Your task to perform on an android device: see tabs open on other devices in the chrome app Image 0: 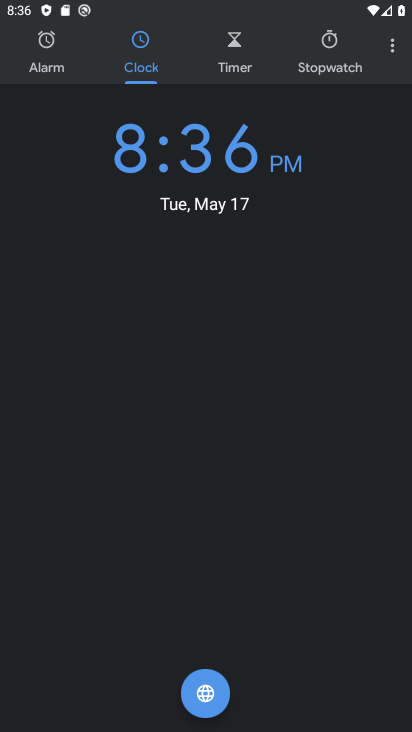
Step 0: press home button
Your task to perform on an android device: see tabs open on other devices in the chrome app Image 1: 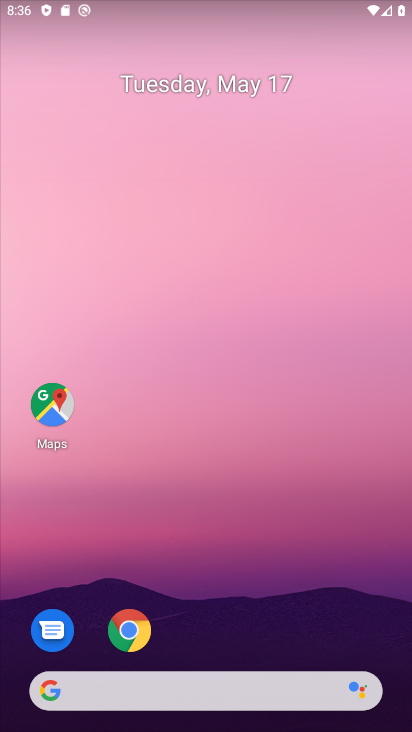
Step 1: drag from (322, 602) to (341, 94)
Your task to perform on an android device: see tabs open on other devices in the chrome app Image 2: 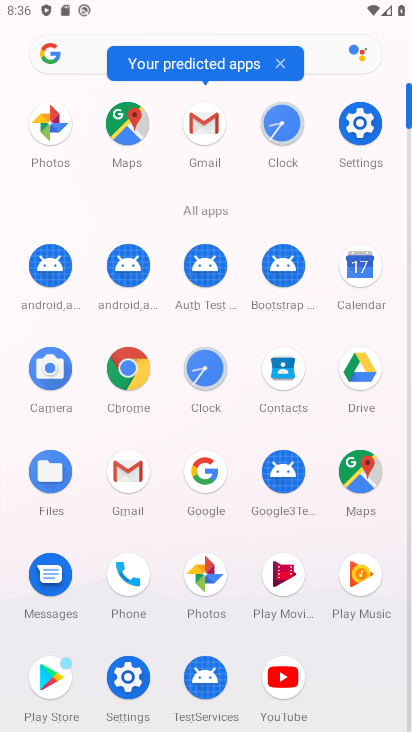
Step 2: click (118, 372)
Your task to perform on an android device: see tabs open on other devices in the chrome app Image 3: 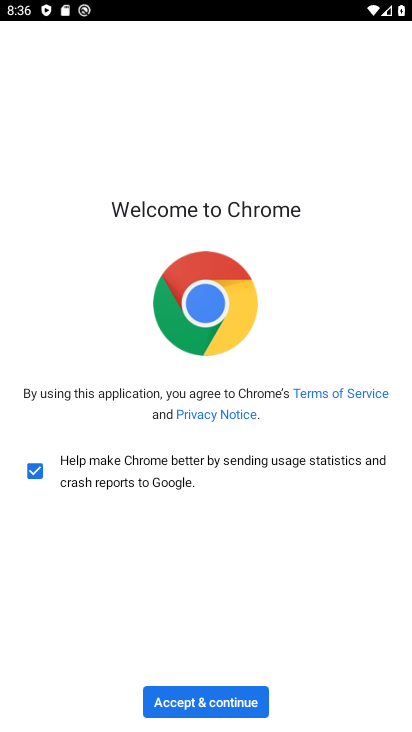
Step 3: click (248, 705)
Your task to perform on an android device: see tabs open on other devices in the chrome app Image 4: 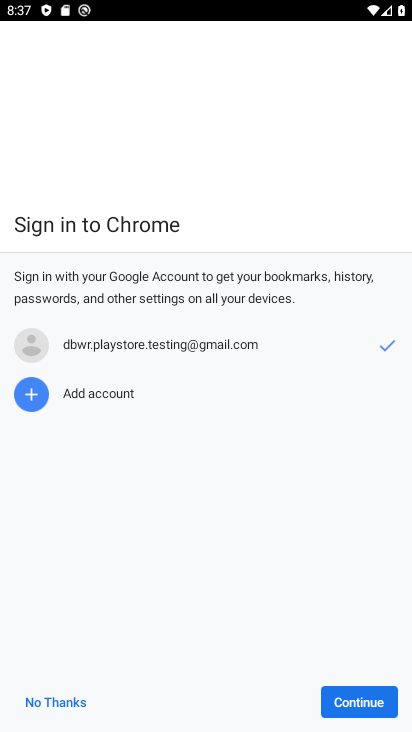
Step 4: click (350, 694)
Your task to perform on an android device: see tabs open on other devices in the chrome app Image 5: 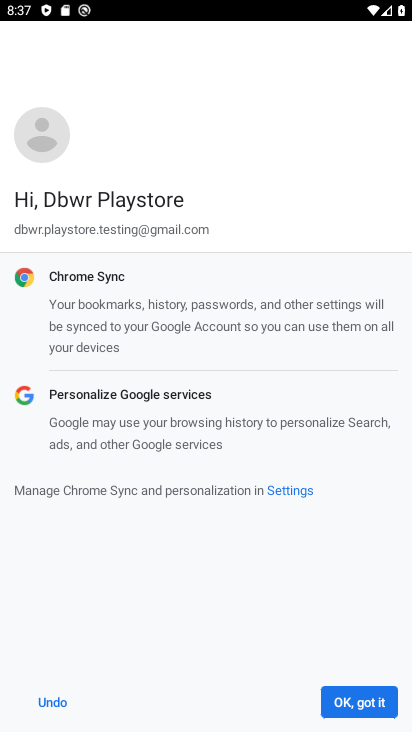
Step 5: click (355, 706)
Your task to perform on an android device: see tabs open on other devices in the chrome app Image 6: 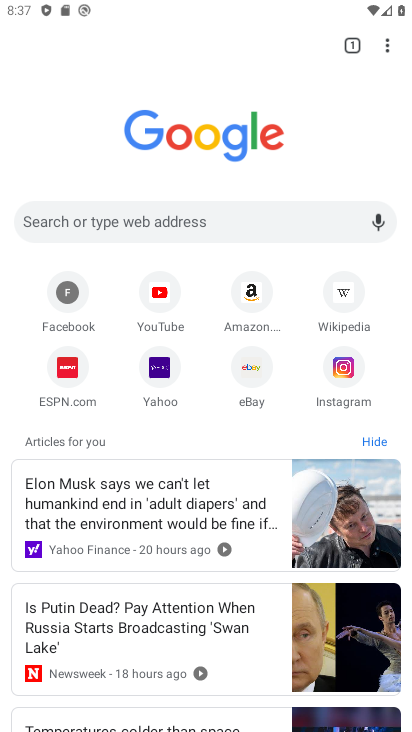
Step 6: click (386, 49)
Your task to perform on an android device: see tabs open on other devices in the chrome app Image 7: 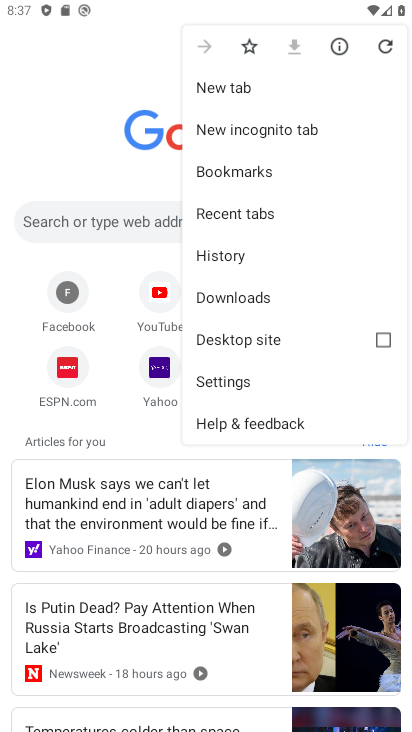
Step 7: click (253, 208)
Your task to perform on an android device: see tabs open on other devices in the chrome app Image 8: 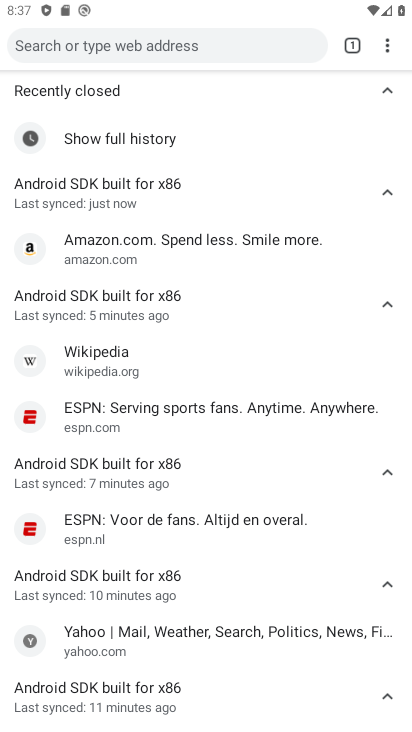
Step 8: click (354, 35)
Your task to perform on an android device: see tabs open on other devices in the chrome app Image 9: 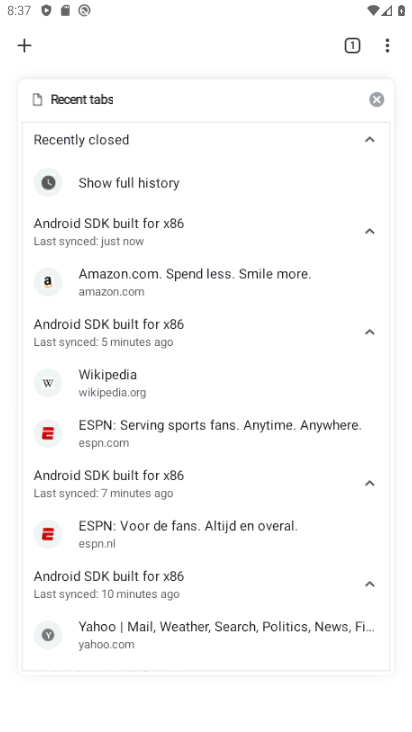
Step 9: task complete